Your task to perform on an android device: see sites visited before in the chrome app Image 0: 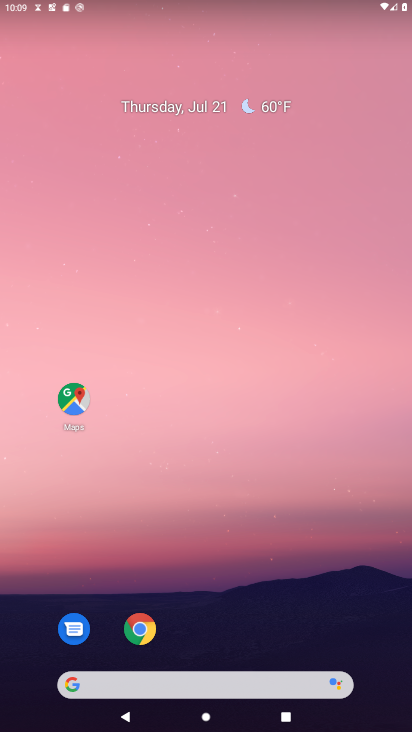
Step 0: click (148, 626)
Your task to perform on an android device: see sites visited before in the chrome app Image 1: 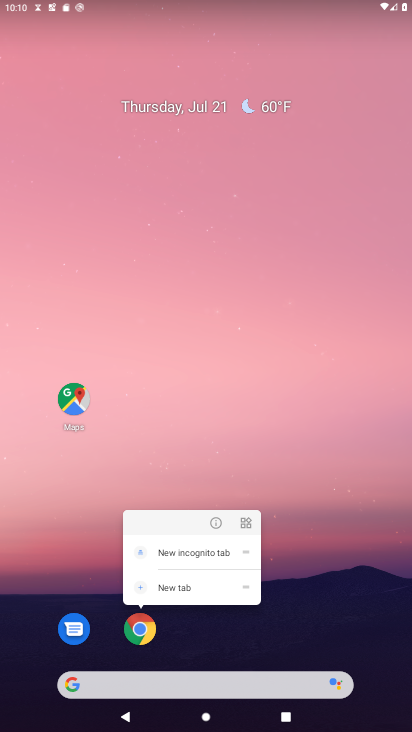
Step 1: click (148, 626)
Your task to perform on an android device: see sites visited before in the chrome app Image 2: 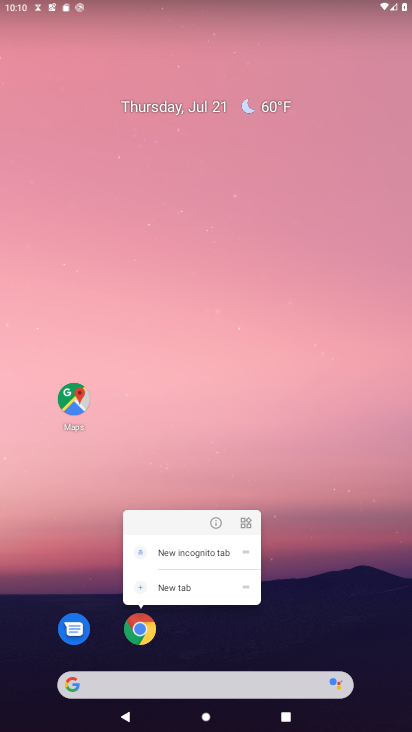
Step 2: click (142, 640)
Your task to perform on an android device: see sites visited before in the chrome app Image 3: 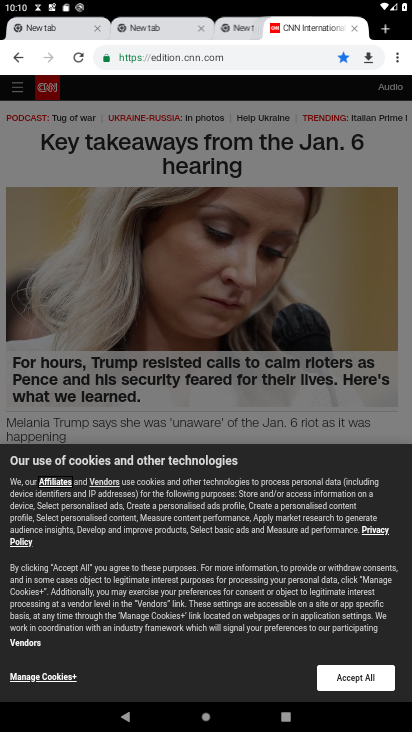
Step 3: click (406, 49)
Your task to perform on an android device: see sites visited before in the chrome app Image 4: 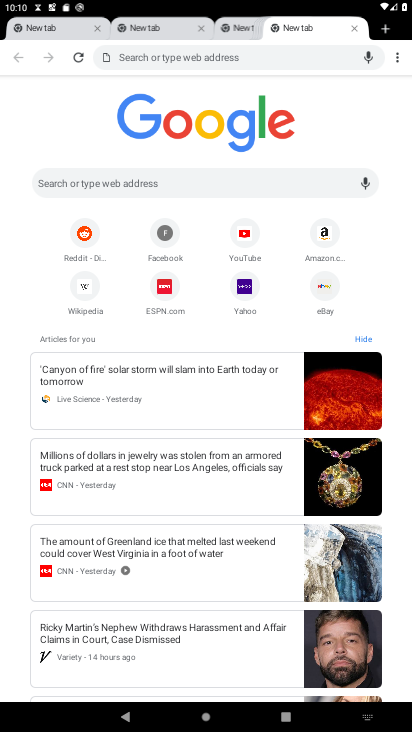
Step 4: click (404, 53)
Your task to perform on an android device: see sites visited before in the chrome app Image 5: 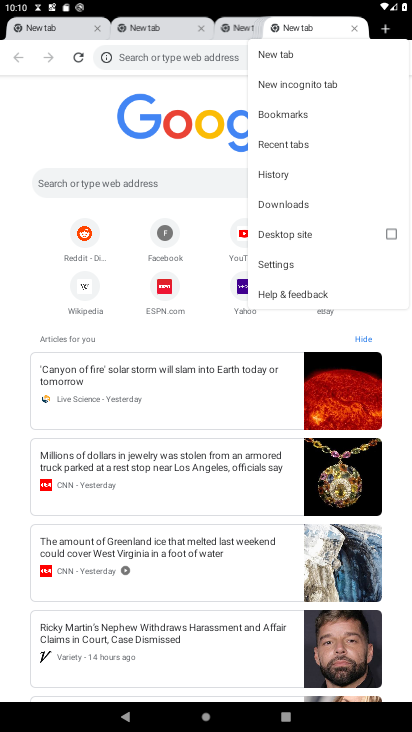
Step 5: click (283, 163)
Your task to perform on an android device: see sites visited before in the chrome app Image 6: 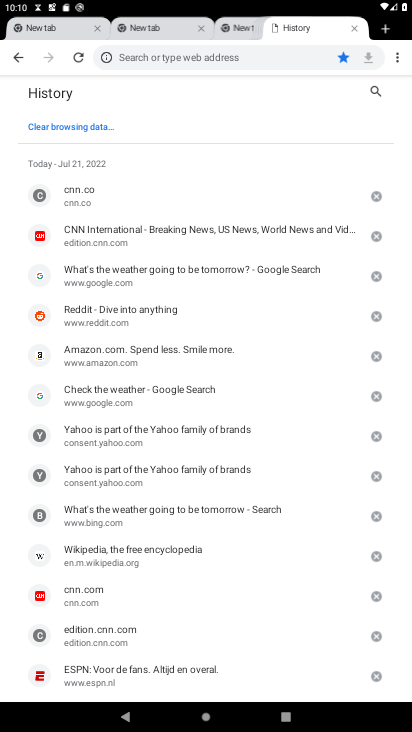
Step 6: task complete